Your task to perform on an android device: Show me the best rated vacuum on Walmart. Image 0: 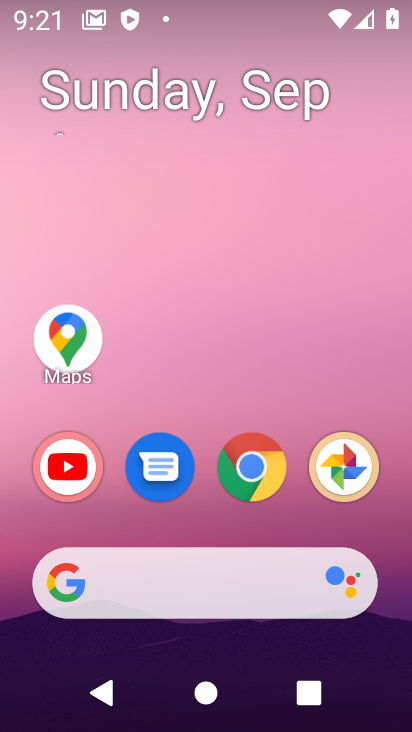
Step 0: click (251, 481)
Your task to perform on an android device: Show me the best rated vacuum on Walmart. Image 1: 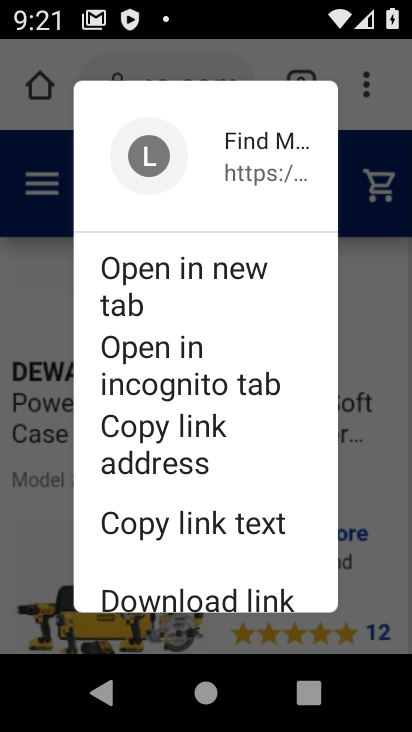
Step 1: click (392, 264)
Your task to perform on an android device: Show me the best rated vacuum on Walmart. Image 2: 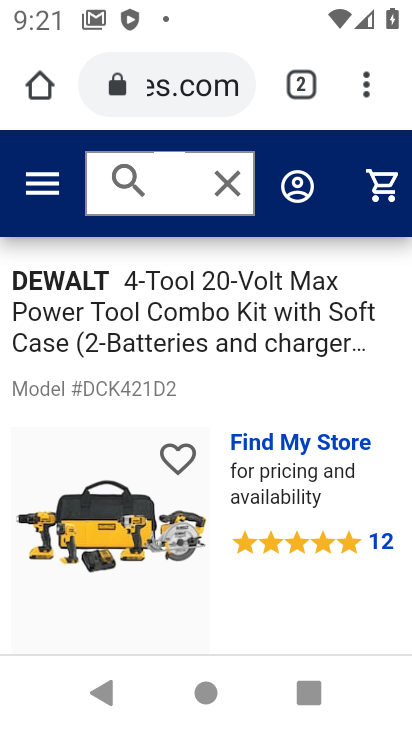
Step 2: click (186, 84)
Your task to perform on an android device: Show me the best rated vacuum on Walmart. Image 3: 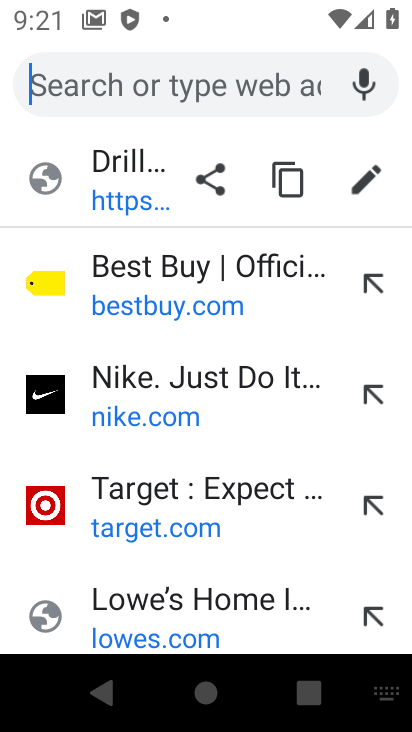
Step 3: type "walmart"
Your task to perform on an android device: Show me the best rated vacuum on Walmart. Image 4: 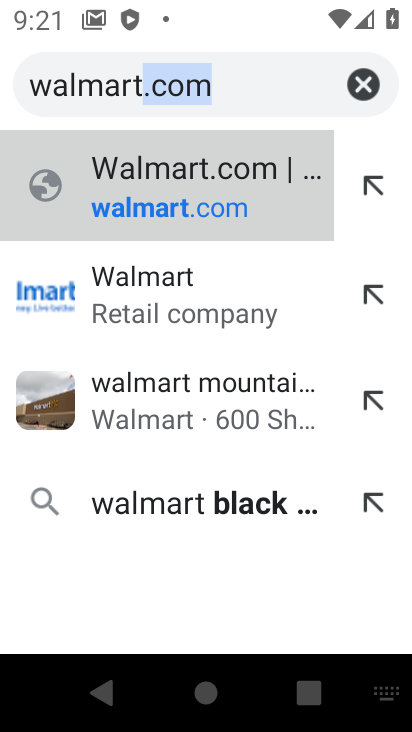
Step 4: type ""
Your task to perform on an android device: Show me the best rated vacuum on Walmart. Image 5: 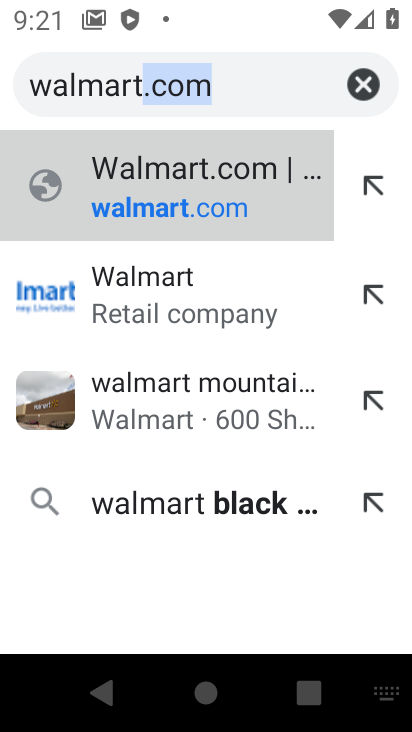
Step 5: click (115, 307)
Your task to perform on an android device: Show me the best rated vacuum on Walmart. Image 6: 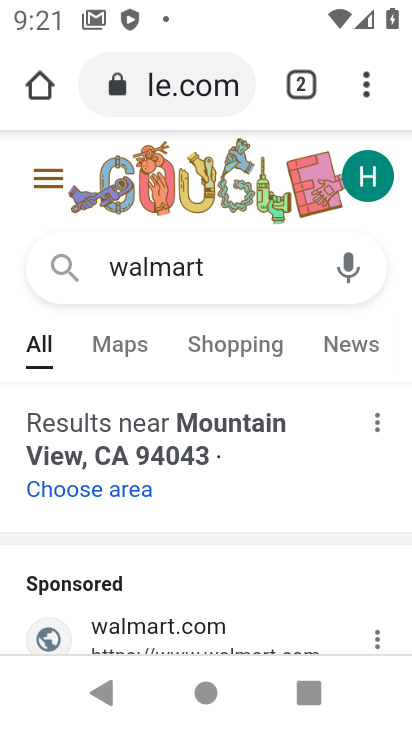
Step 6: drag from (358, 576) to (378, 198)
Your task to perform on an android device: Show me the best rated vacuum on Walmart. Image 7: 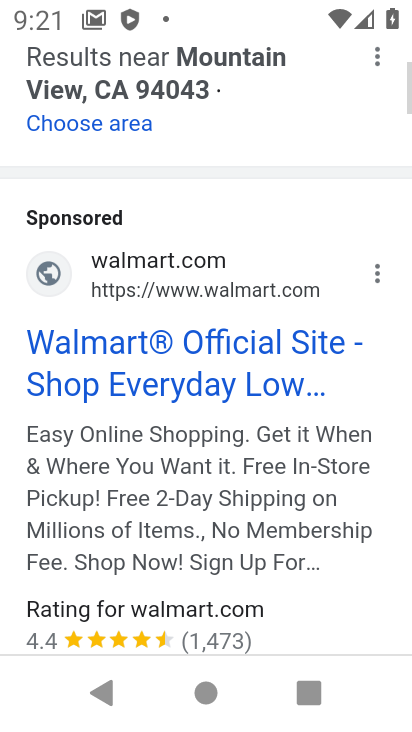
Step 7: drag from (333, 585) to (334, 233)
Your task to perform on an android device: Show me the best rated vacuum on Walmart. Image 8: 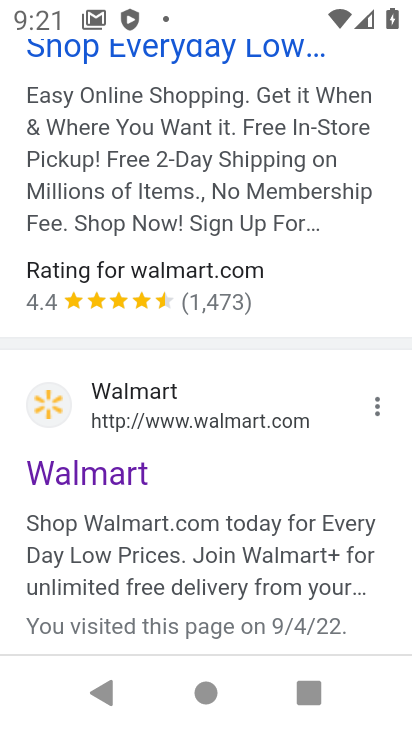
Step 8: click (88, 471)
Your task to perform on an android device: Show me the best rated vacuum on Walmart. Image 9: 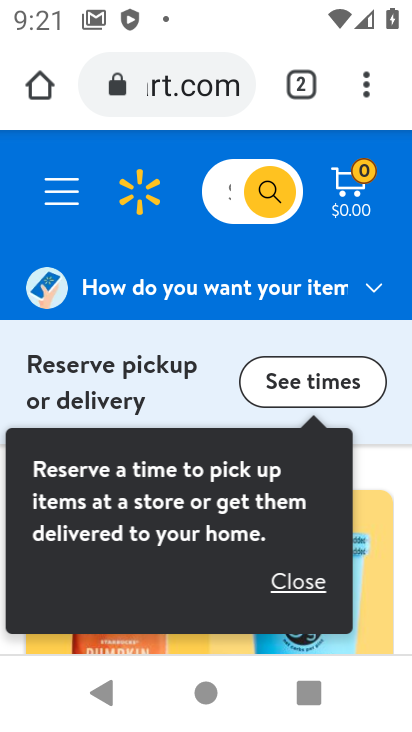
Step 9: click (265, 180)
Your task to perform on an android device: Show me the best rated vacuum on Walmart. Image 10: 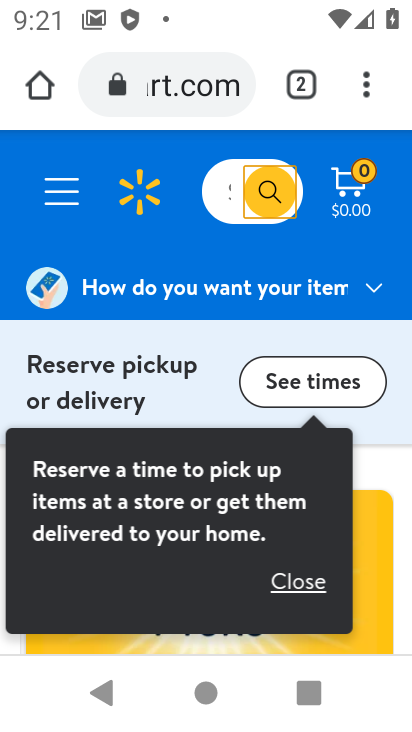
Step 10: click (266, 193)
Your task to perform on an android device: Show me the best rated vacuum on Walmart. Image 11: 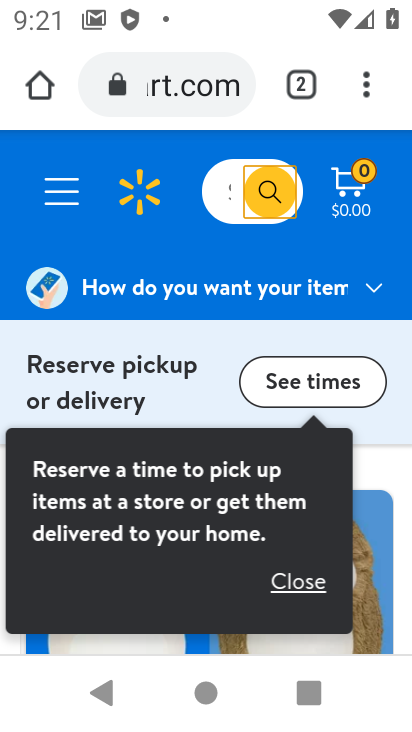
Step 11: click (260, 194)
Your task to perform on an android device: Show me the best rated vacuum on Walmart. Image 12: 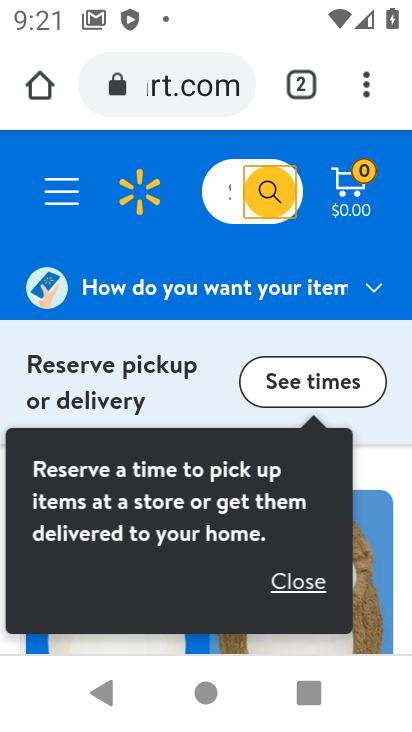
Step 12: click (258, 183)
Your task to perform on an android device: Show me the best rated vacuum on Walmart. Image 13: 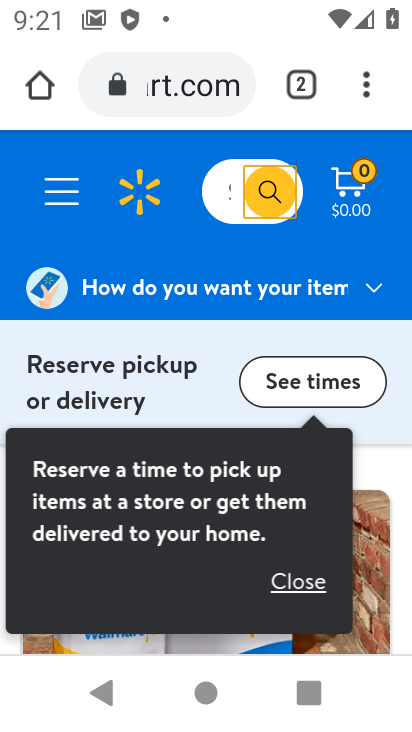
Step 13: click (262, 189)
Your task to perform on an android device: Show me the best rated vacuum on Walmart. Image 14: 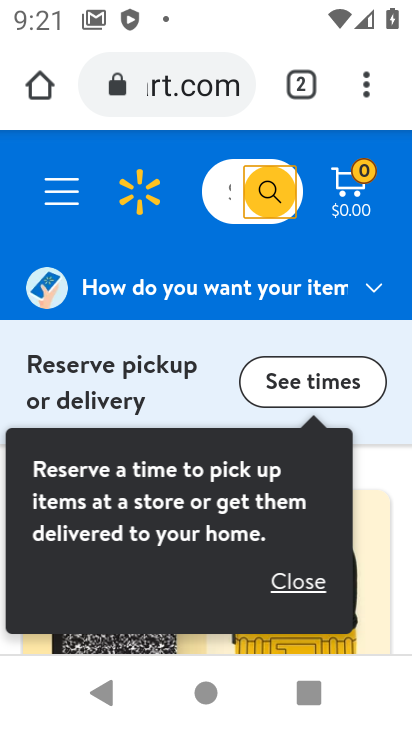
Step 14: click (212, 190)
Your task to perform on an android device: Show me the best rated vacuum on Walmart. Image 15: 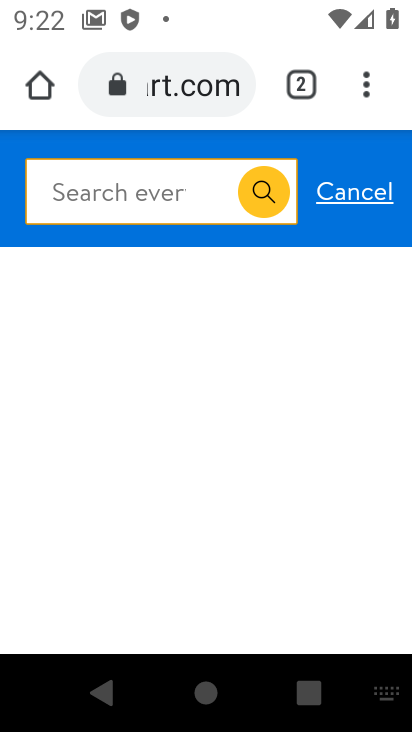
Step 15: type "vaccum"
Your task to perform on an android device: Show me the best rated vacuum on Walmart. Image 16: 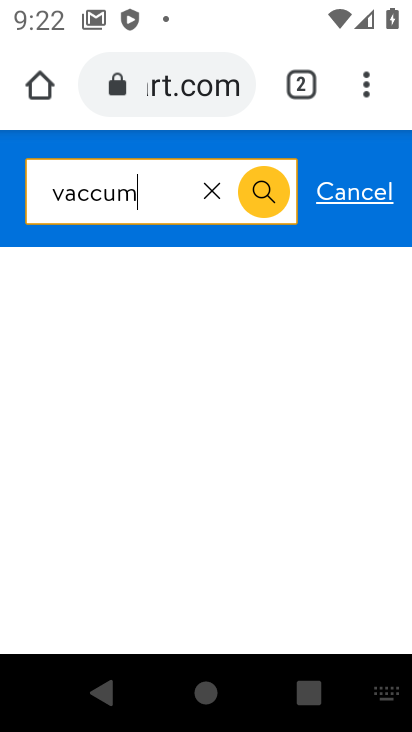
Step 16: type ""
Your task to perform on an android device: Show me the best rated vacuum on Walmart. Image 17: 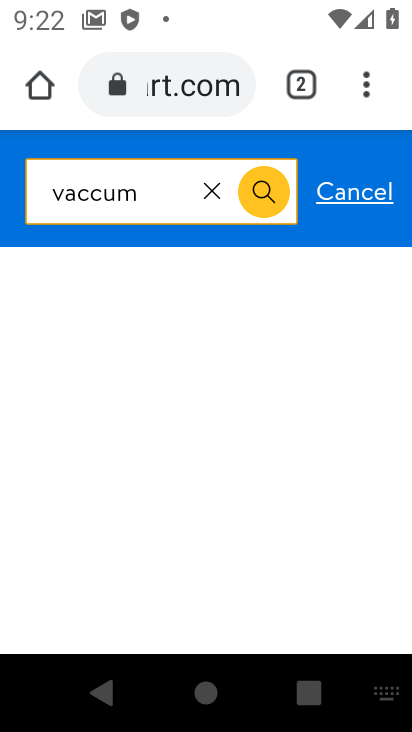
Step 17: click (250, 191)
Your task to perform on an android device: Show me the best rated vacuum on Walmart. Image 18: 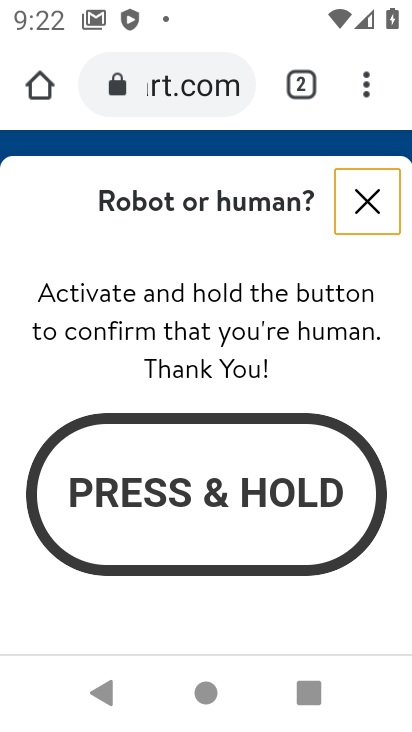
Step 18: click (363, 200)
Your task to perform on an android device: Show me the best rated vacuum on Walmart. Image 19: 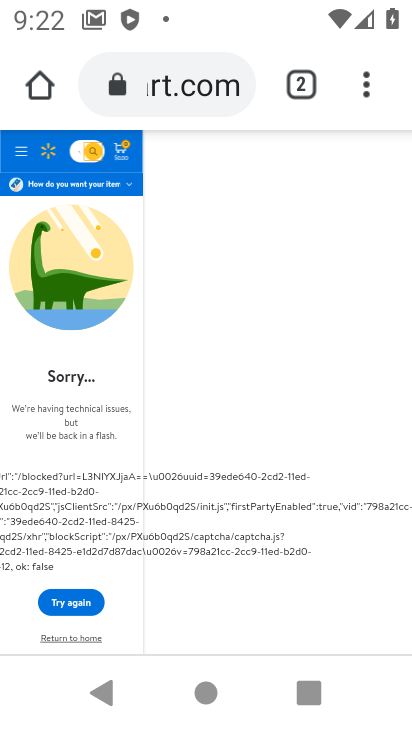
Step 19: task complete